Your task to perform on an android device: change keyboard looks Image 0: 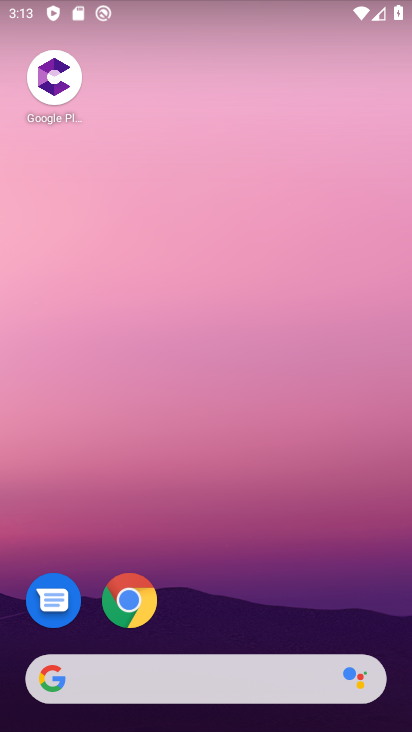
Step 0: drag from (243, 636) to (374, 3)
Your task to perform on an android device: change keyboard looks Image 1: 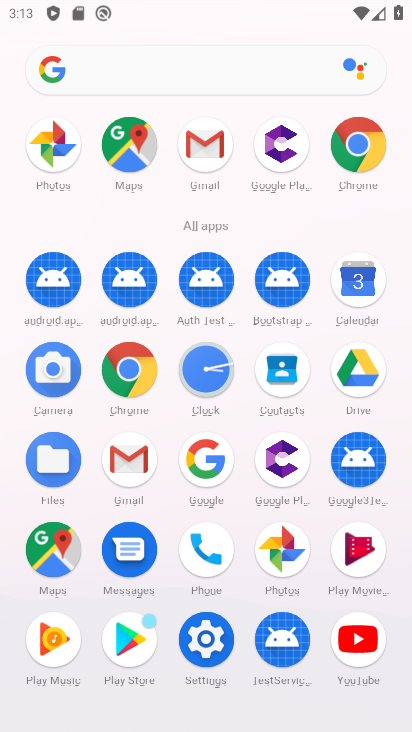
Step 1: click (205, 647)
Your task to perform on an android device: change keyboard looks Image 2: 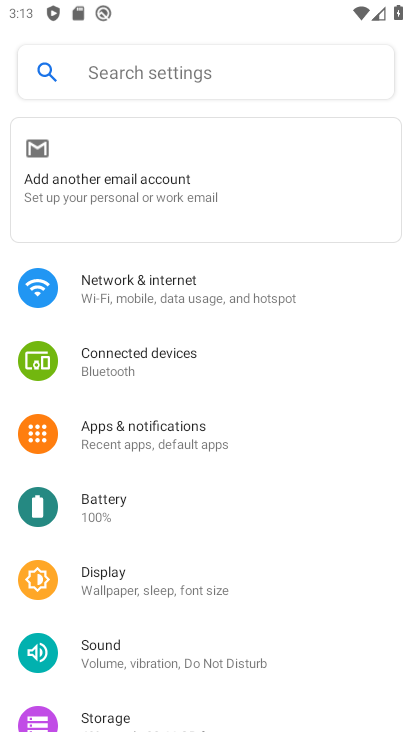
Step 2: drag from (175, 674) to (266, 47)
Your task to perform on an android device: change keyboard looks Image 3: 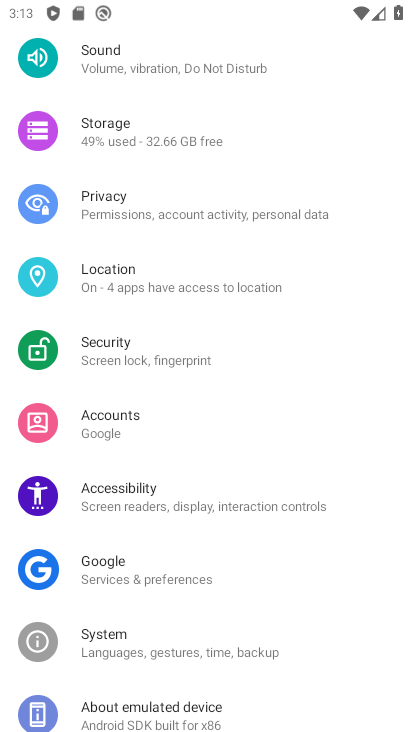
Step 3: drag from (153, 633) to (162, 381)
Your task to perform on an android device: change keyboard looks Image 4: 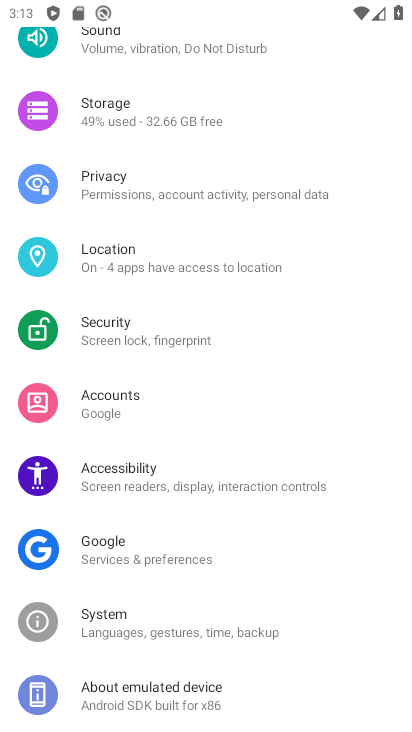
Step 4: drag from (189, 669) to (242, 252)
Your task to perform on an android device: change keyboard looks Image 5: 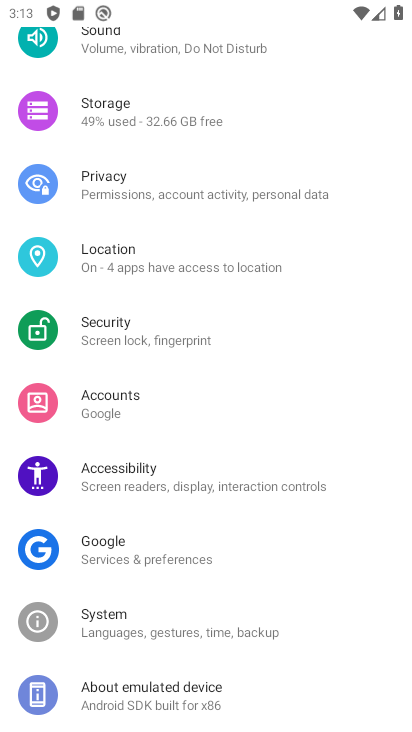
Step 5: click (115, 629)
Your task to perform on an android device: change keyboard looks Image 6: 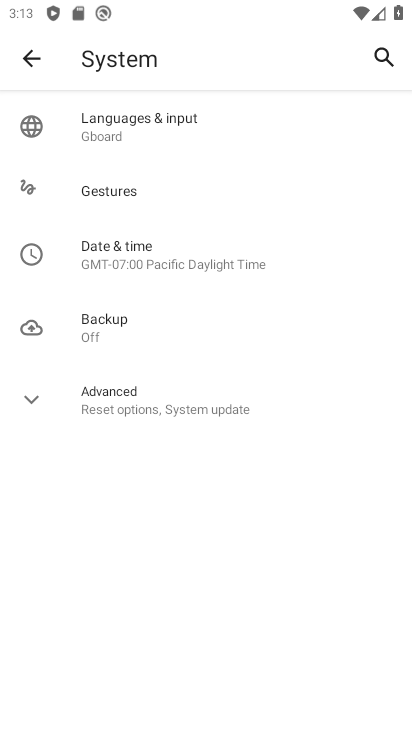
Step 6: click (136, 120)
Your task to perform on an android device: change keyboard looks Image 7: 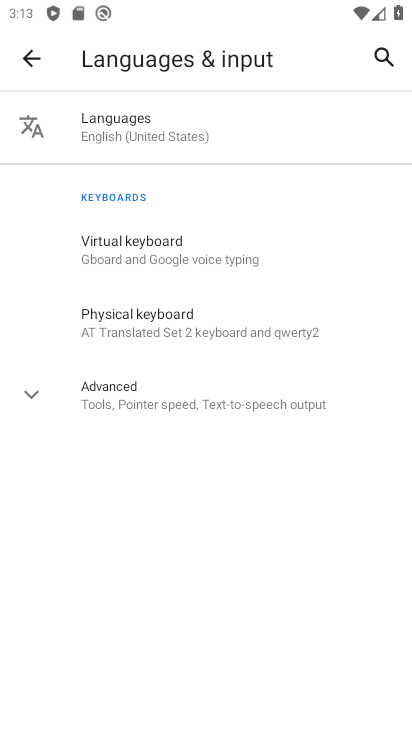
Step 7: click (147, 244)
Your task to perform on an android device: change keyboard looks Image 8: 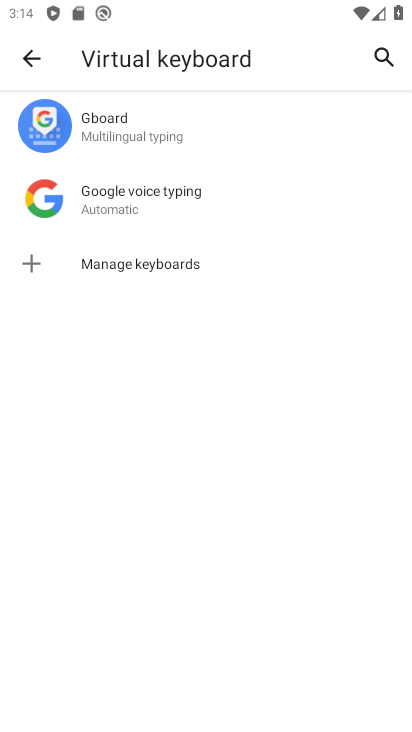
Step 8: click (120, 123)
Your task to perform on an android device: change keyboard looks Image 9: 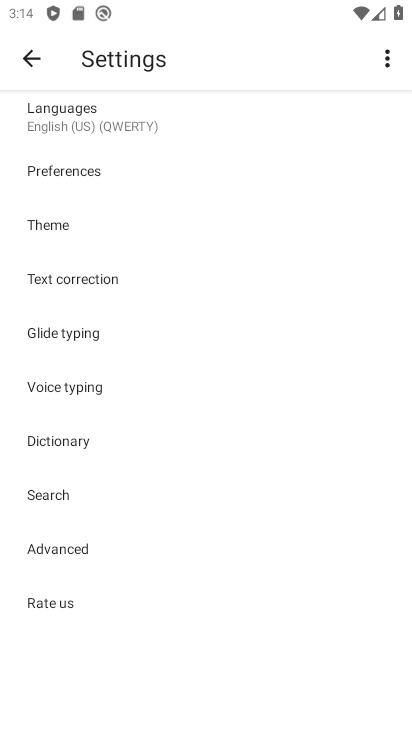
Step 9: click (68, 235)
Your task to perform on an android device: change keyboard looks Image 10: 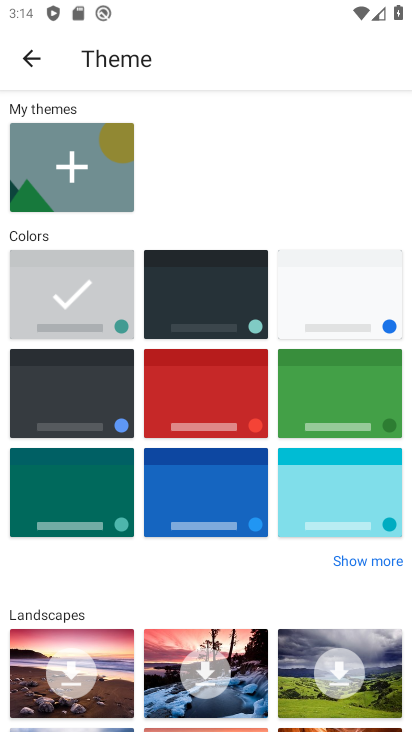
Step 10: click (184, 281)
Your task to perform on an android device: change keyboard looks Image 11: 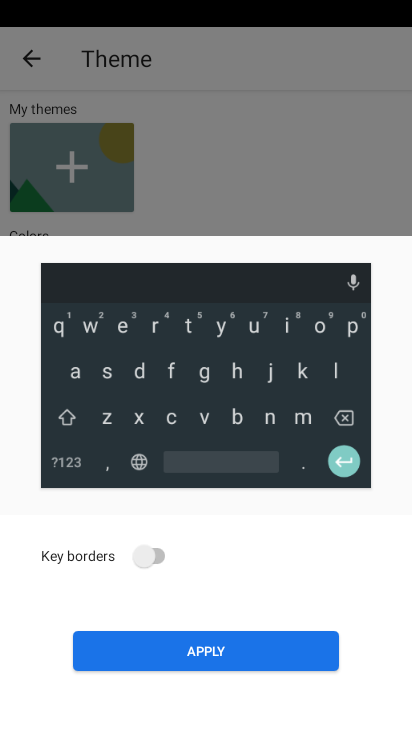
Step 11: click (199, 643)
Your task to perform on an android device: change keyboard looks Image 12: 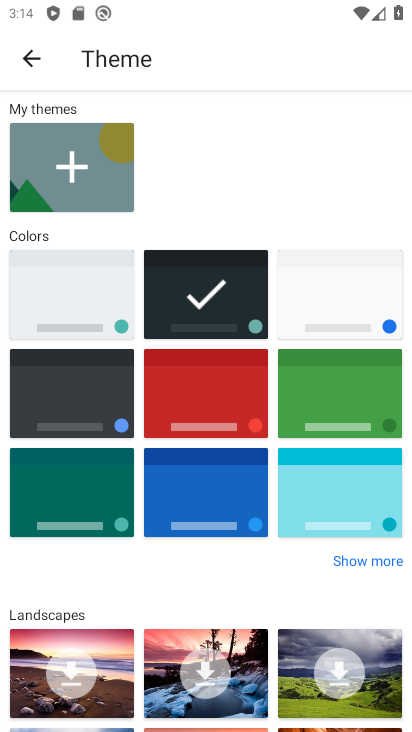
Step 12: task complete